Your task to perform on an android device: What's on my calendar today? Image 0: 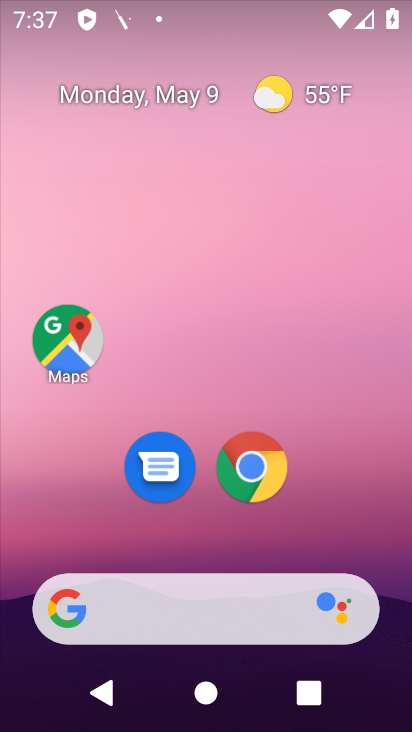
Step 0: drag from (349, 528) to (296, 5)
Your task to perform on an android device: What's on my calendar today? Image 1: 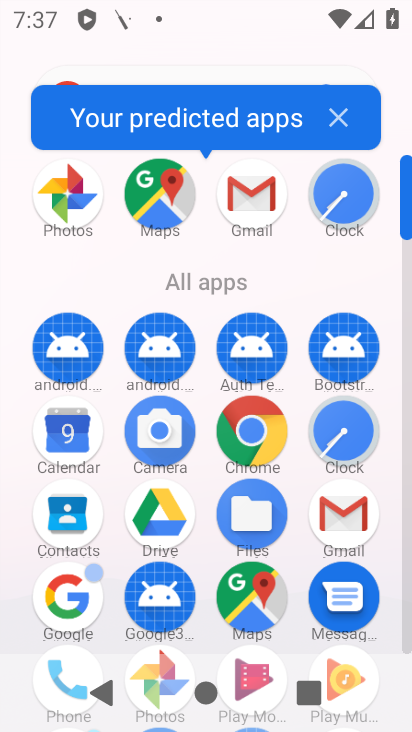
Step 1: click (71, 435)
Your task to perform on an android device: What's on my calendar today? Image 2: 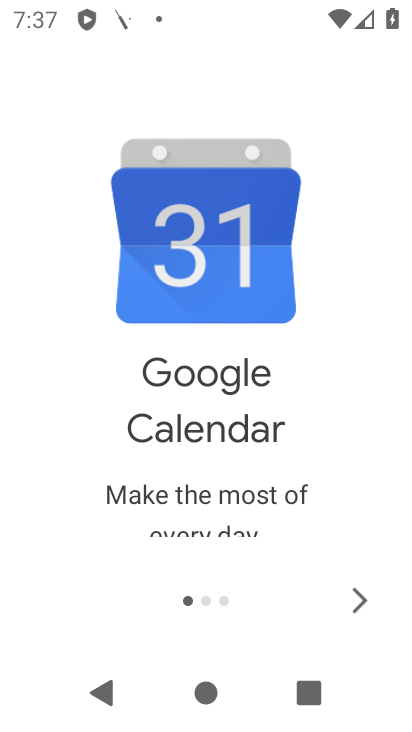
Step 2: click (345, 609)
Your task to perform on an android device: What's on my calendar today? Image 3: 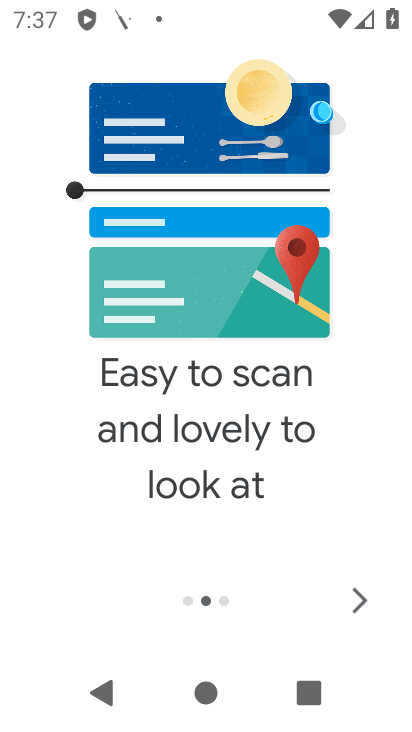
Step 3: click (345, 609)
Your task to perform on an android device: What's on my calendar today? Image 4: 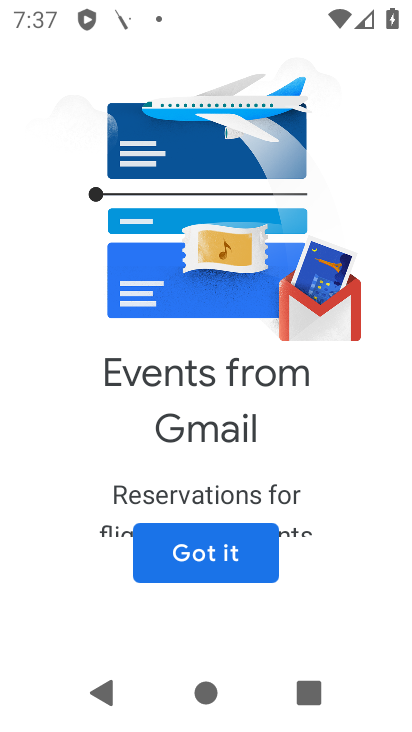
Step 4: click (198, 569)
Your task to perform on an android device: What's on my calendar today? Image 5: 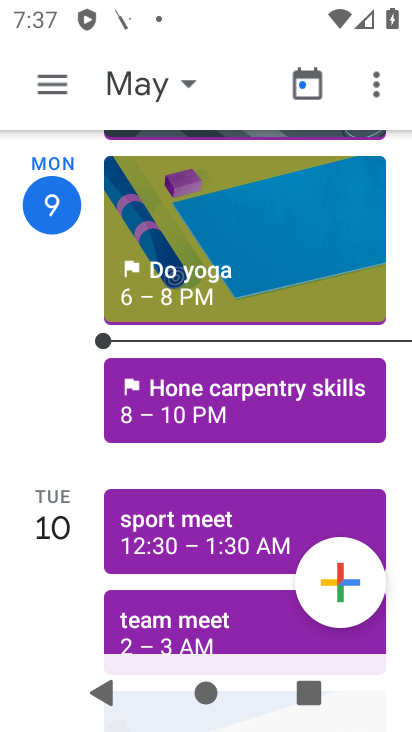
Step 5: click (183, 410)
Your task to perform on an android device: What's on my calendar today? Image 6: 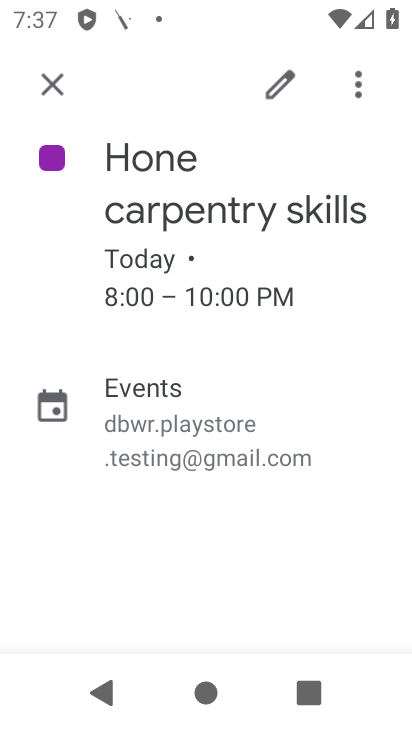
Step 6: task complete